Your task to perform on an android device: set an alarm Image 0: 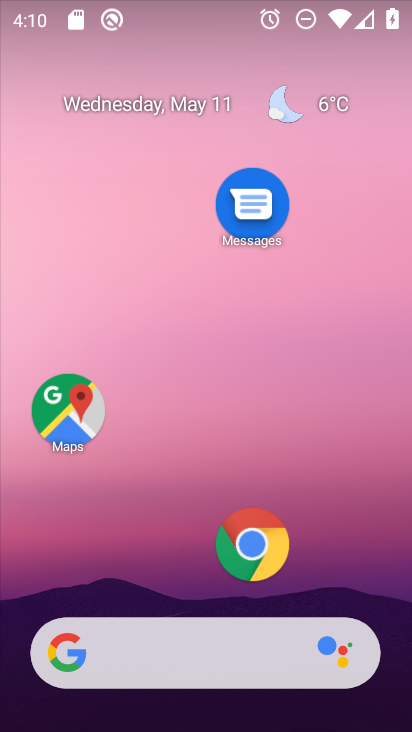
Step 0: drag from (147, 562) to (228, 60)
Your task to perform on an android device: set an alarm Image 1: 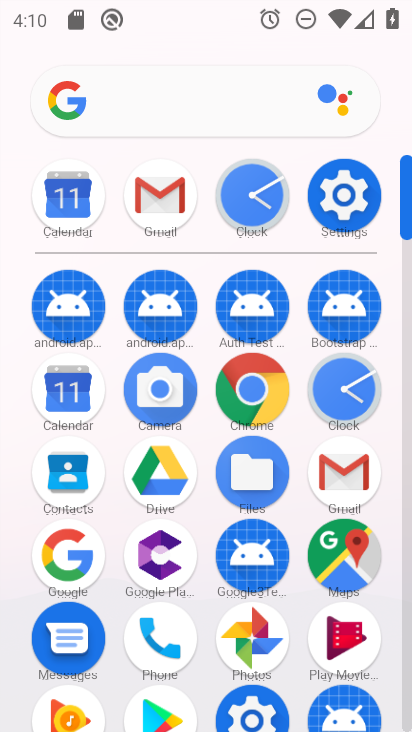
Step 1: click (349, 404)
Your task to perform on an android device: set an alarm Image 2: 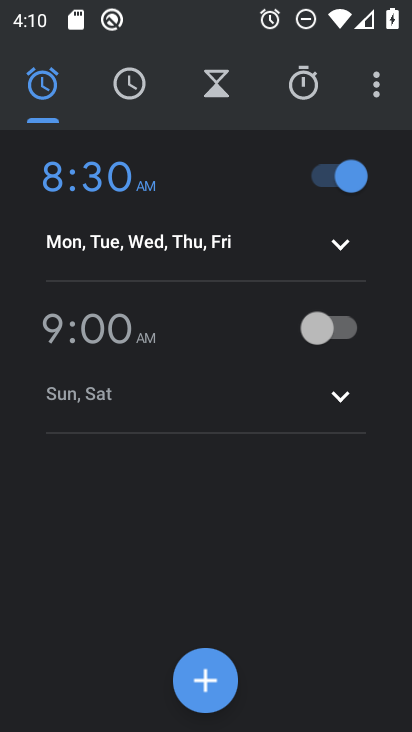
Step 2: click (345, 311)
Your task to perform on an android device: set an alarm Image 3: 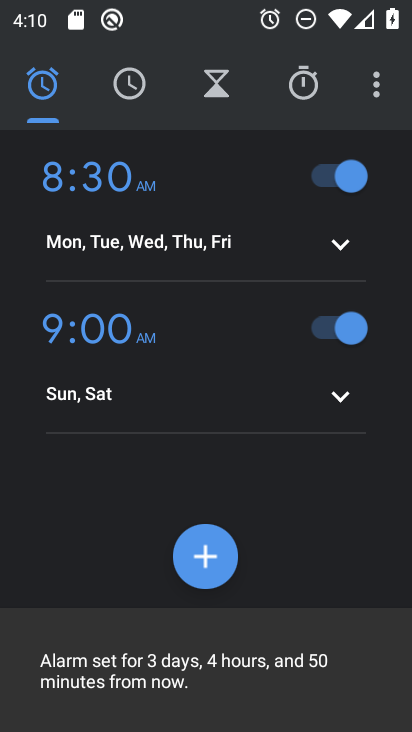
Step 3: task complete